Your task to perform on an android device: find photos in the google photos app Image 0: 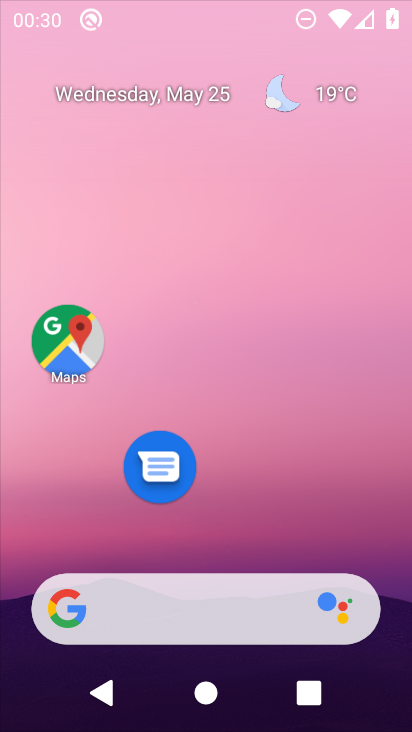
Step 0: drag from (314, 83) to (74, 2)
Your task to perform on an android device: find photos in the google photos app Image 1: 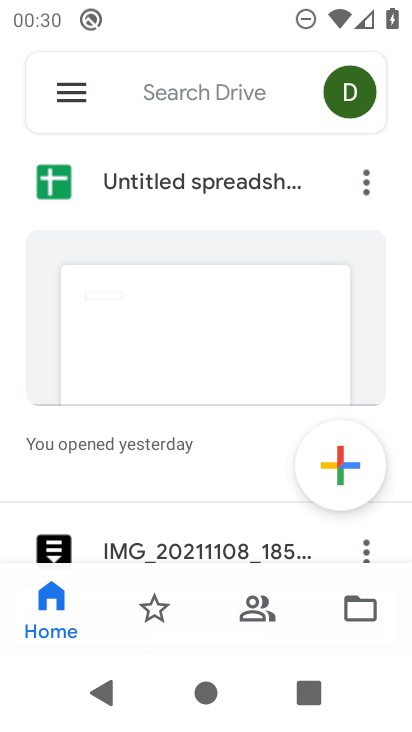
Step 1: drag from (231, 527) to (328, 161)
Your task to perform on an android device: find photos in the google photos app Image 2: 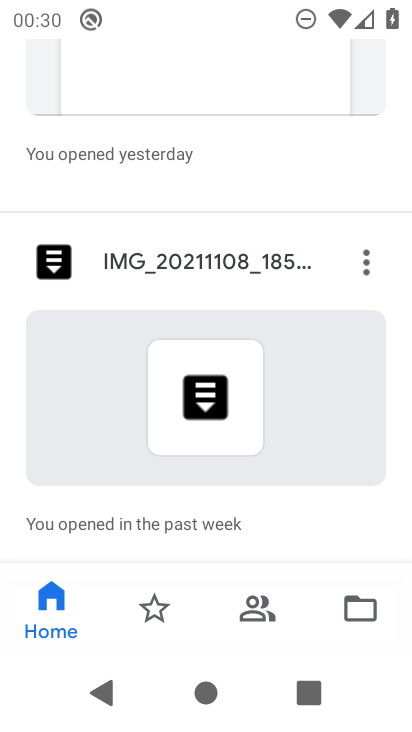
Step 2: drag from (296, 492) to (373, 133)
Your task to perform on an android device: find photos in the google photos app Image 3: 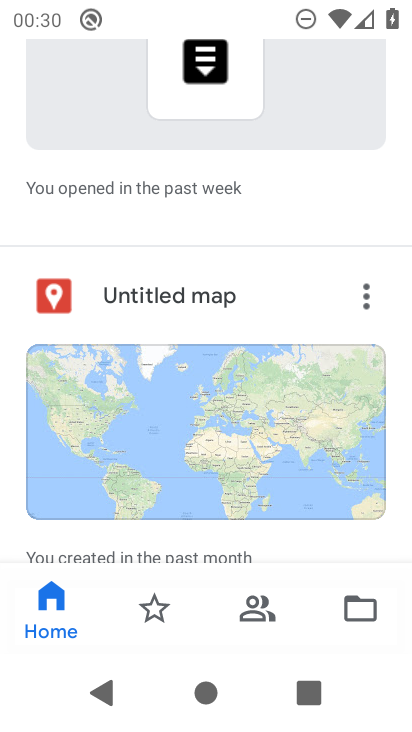
Step 3: press home button
Your task to perform on an android device: find photos in the google photos app Image 4: 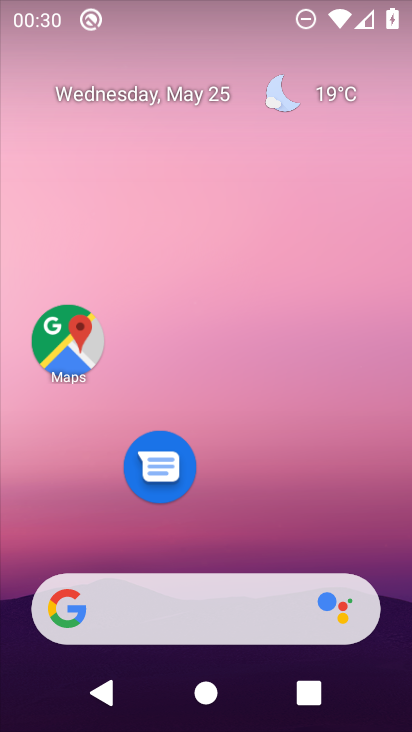
Step 4: drag from (217, 548) to (234, 1)
Your task to perform on an android device: find photos in the google photos app Image 5: 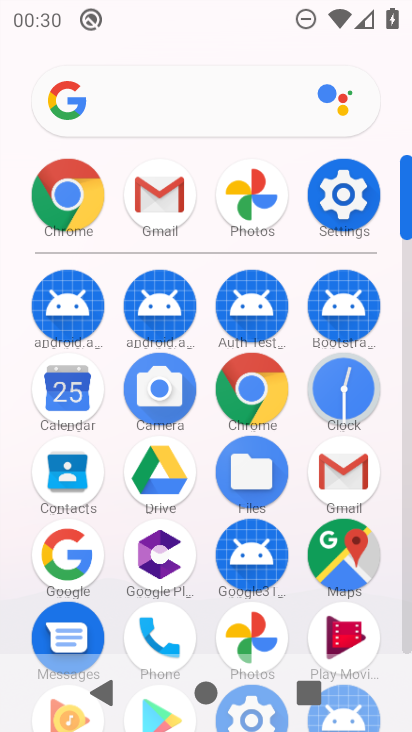
Step 5: click (257, 627)
Your task to perform on an android device: find photos in the google photos app Image 6: 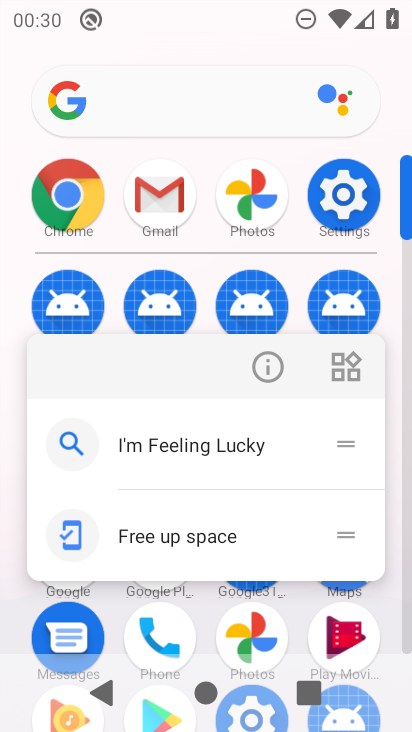
Step 6: click (248, 364)
Your task to perform on an android device: find photos in the google photos app Image 7: 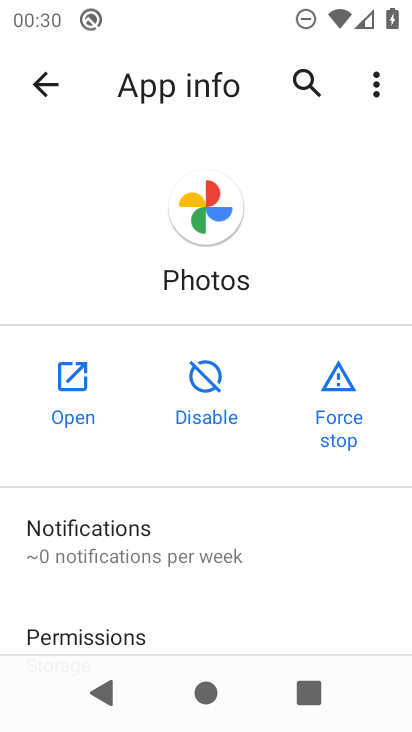
Step 7: click (62, 373)
Your task to perform on an android device: find photos in the google photos app Image 8: 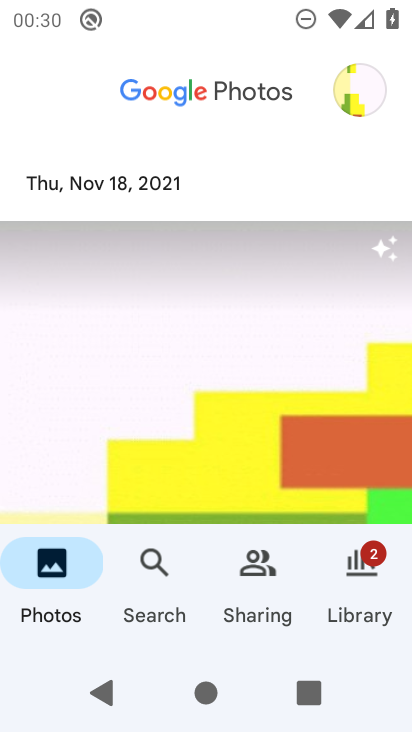
Step 8: drag from (305, 403) to (369, 0)
Your task to perform on an android device: find photos in the google photos app Image 9: 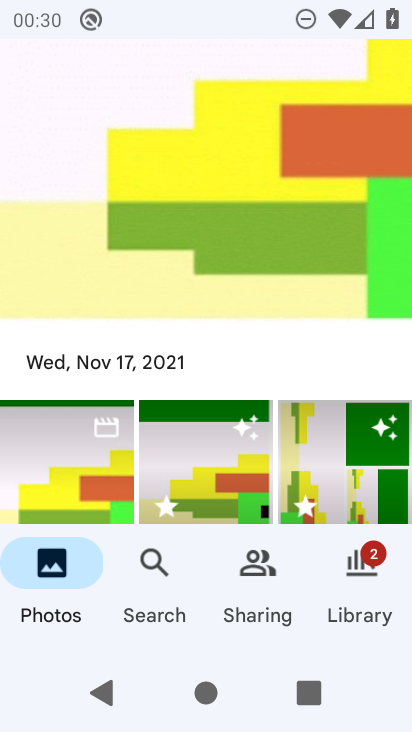
Step 9: click (83, 450)
Your task to perform on an android device: find photos in the google photos app Image 10: 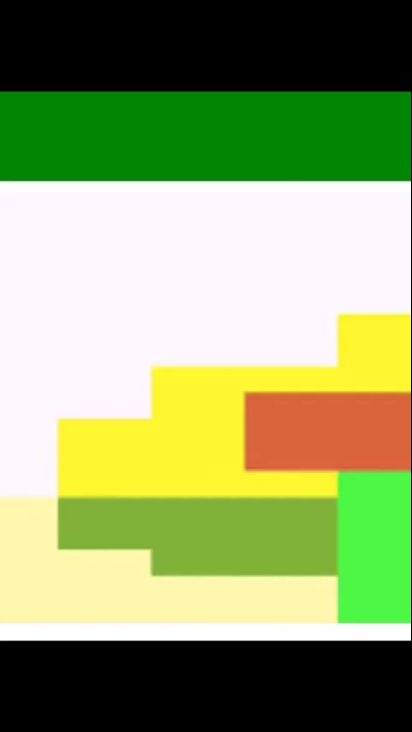
Step 10: task complete